Your task to perform on an android device: Search for the best selling phone on AliExpress Image 0: 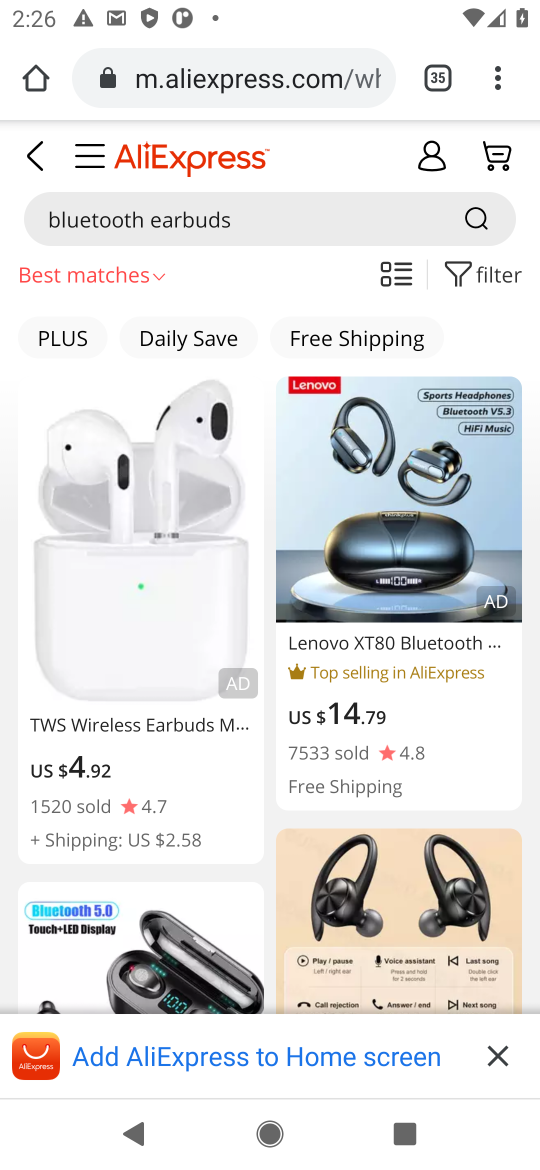
Step 0: press home button
Your task to perform on an android device: Search for the best selling phone on AliExpress Image 1: 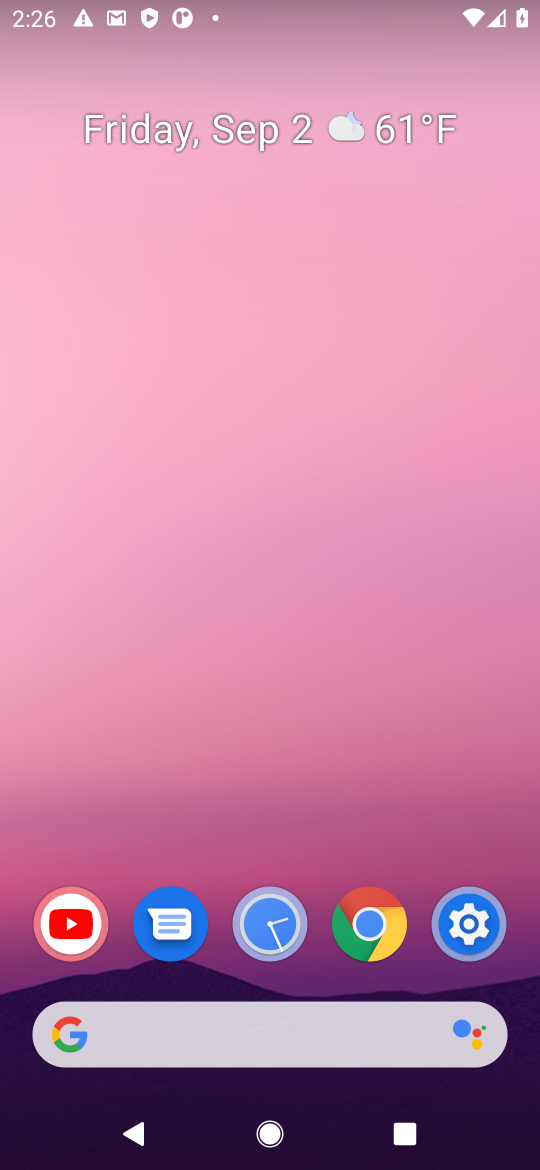
Step 1: click (405, 1031)
Your task to perform on an android device: Search for the best selling phone on AliExpress Image 2: 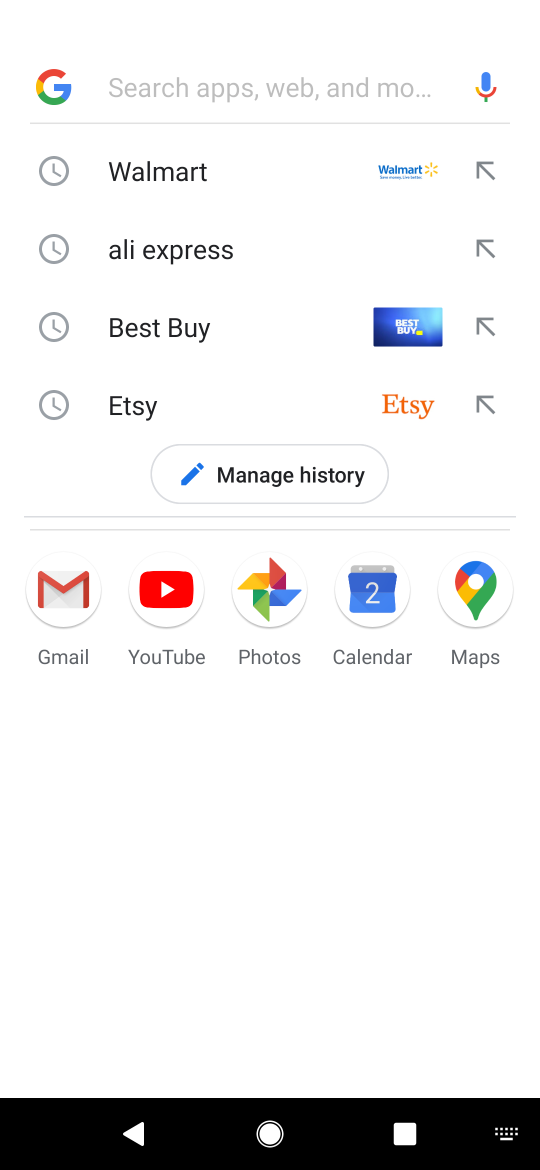
Step 2: press enter
Your task to perform on an android device: Search for the best selling phone on AliExpress Image 3: 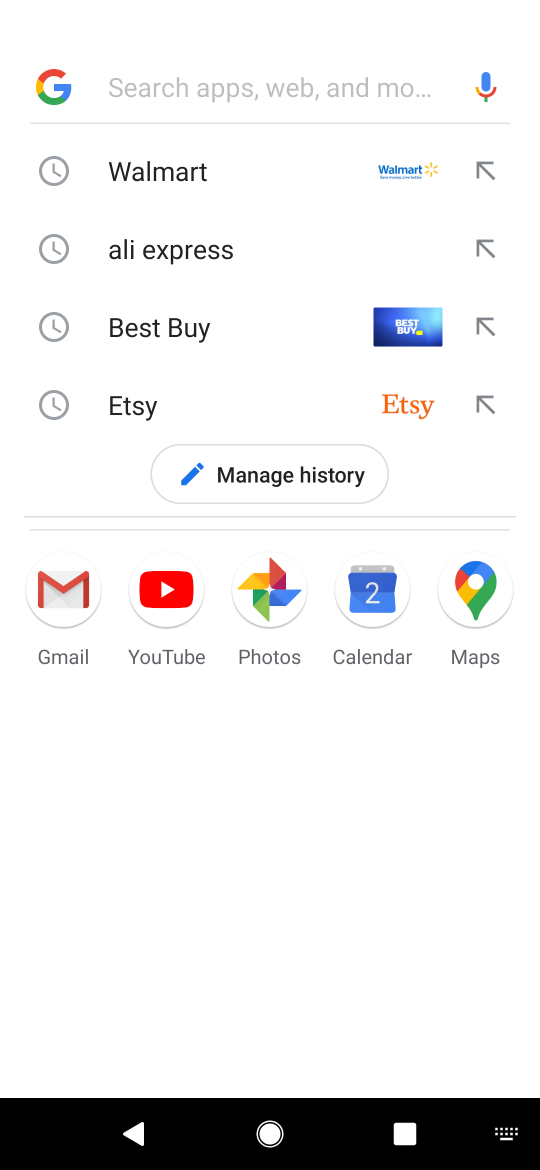
Step 3: type "aliexpress"
Your task to perform on an android device: Search for the best selling phone on AliExpress Image 4: 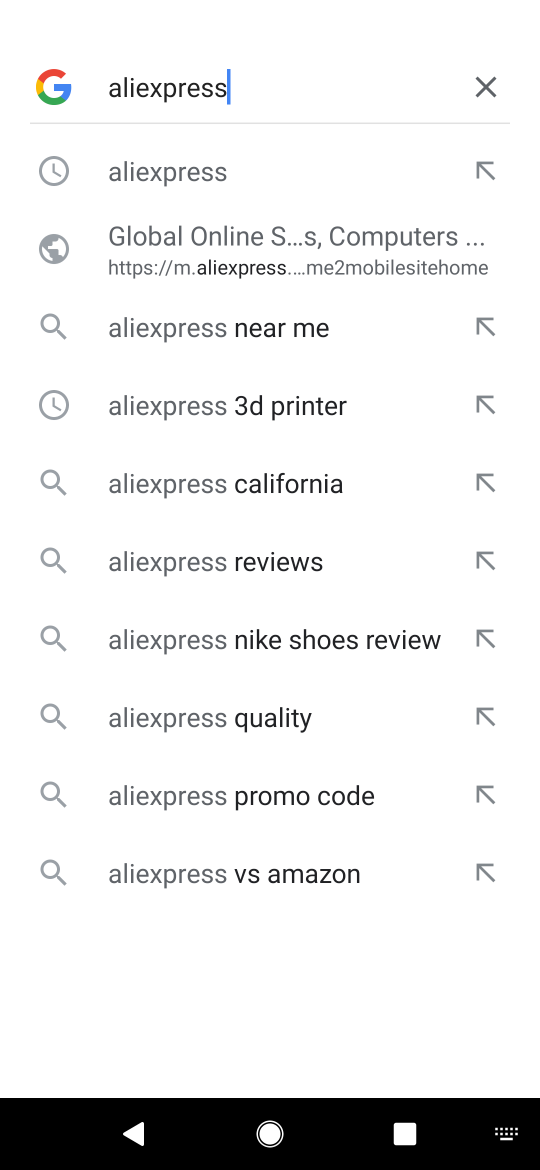
Step 4: click (244, 255)
Your task to perform on an android device: Search for the best selling phone on AliExpress Image 5: 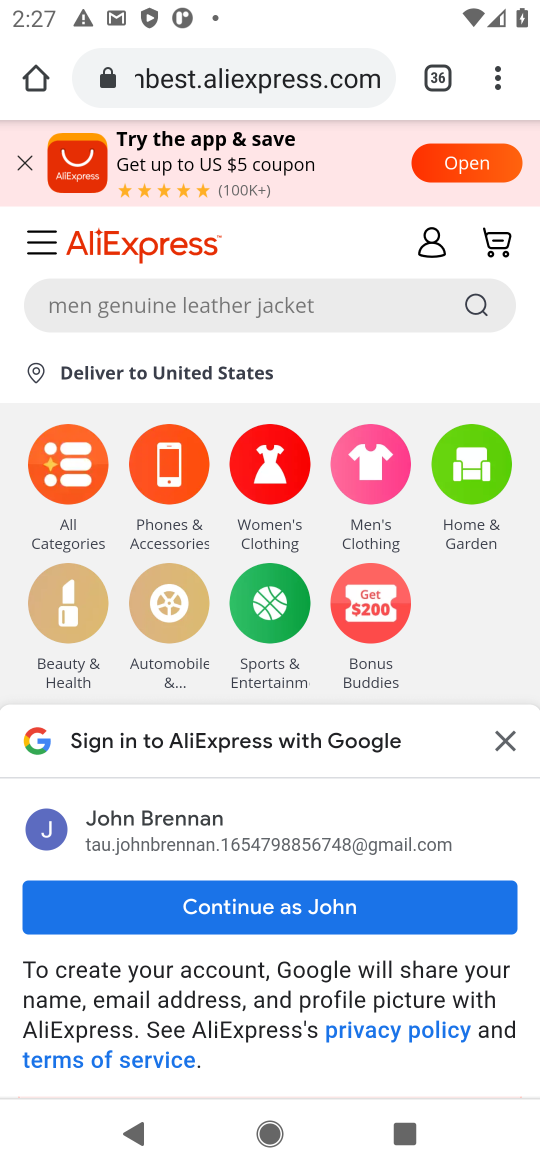
Step 5: click (504, 745)
Your task to perform on an android device: Search for the best selling phone on AliExpress Image 6: 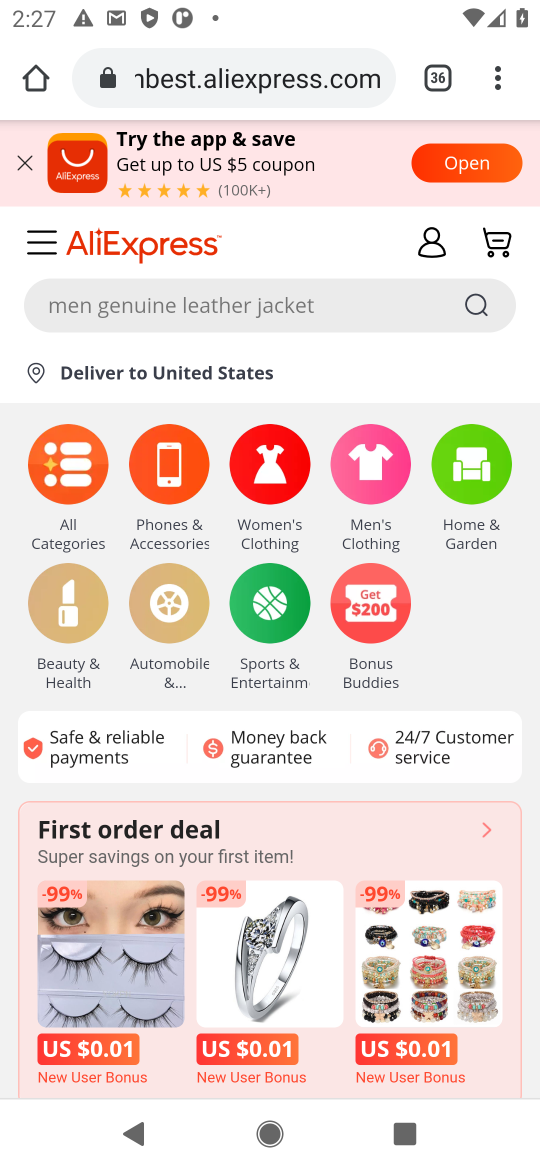
Step 6: click (94, 297)
Your task to perform on an android device: Search for the best selling phone on AliExpress Image 7: 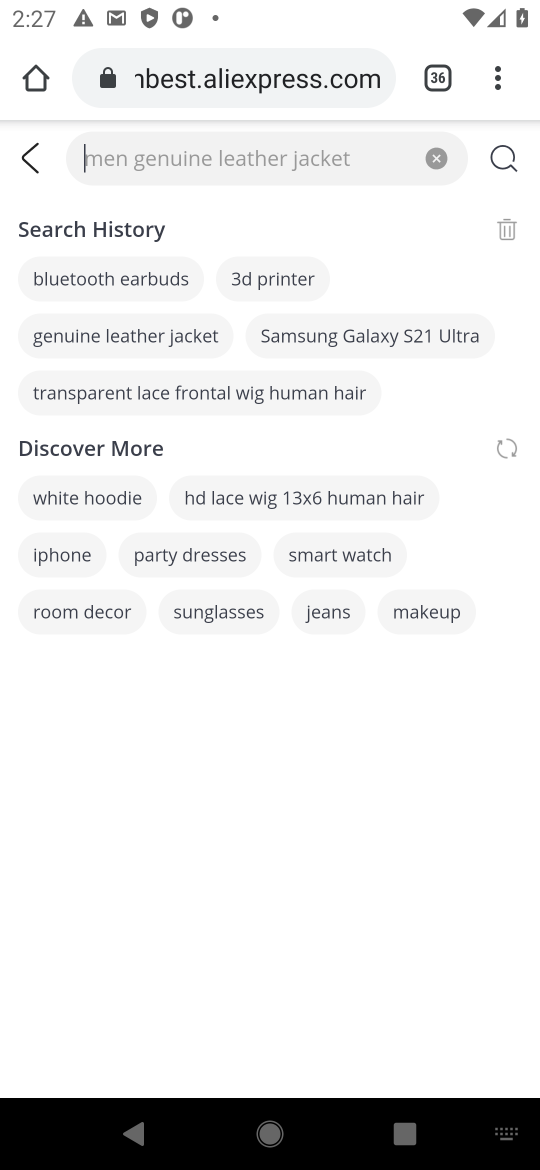
Step 7: type "best selling phone"
Your task to perform on an android device: Search for the best selling phone on AliExpress Image 8: 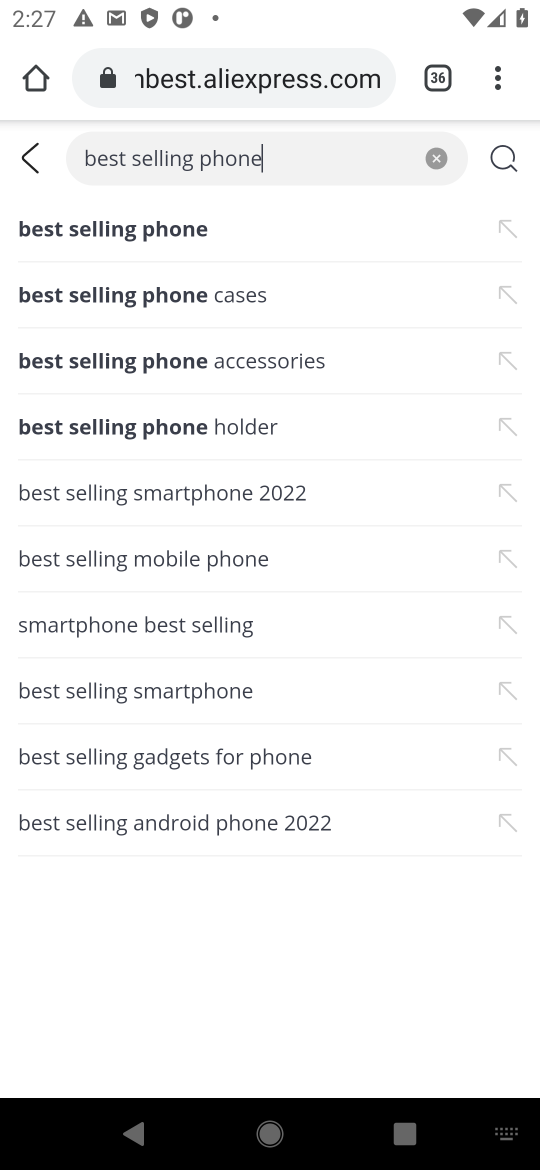
Step 8: click (185, 227)
Your task to perform on an android device: Search for the best selling phone on AliExpress Image 9: 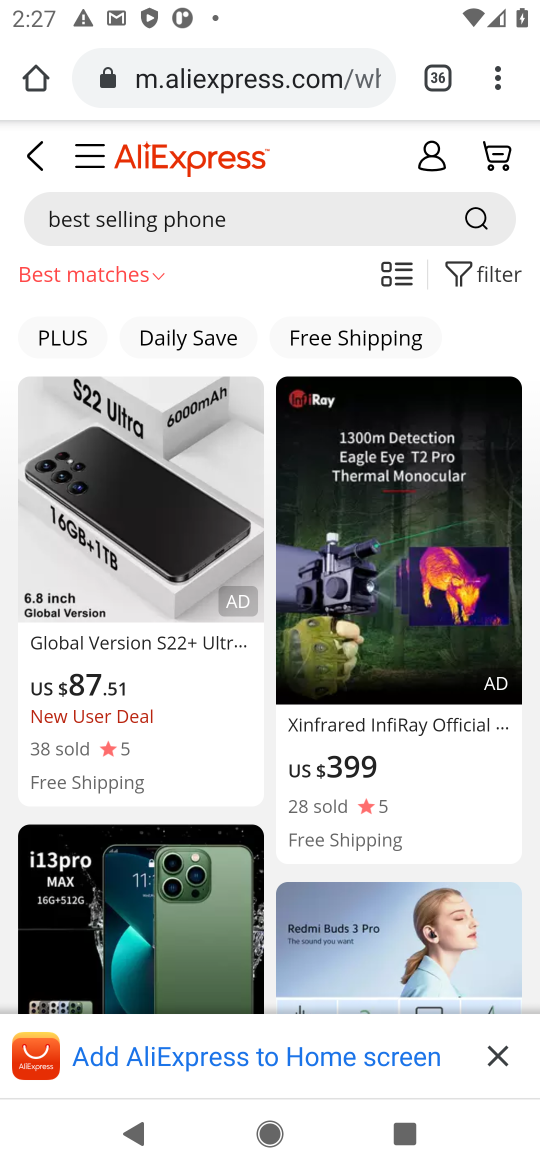
Step 9: task complete